Your task to perform on an android device: empty trash in google photos Image 0: 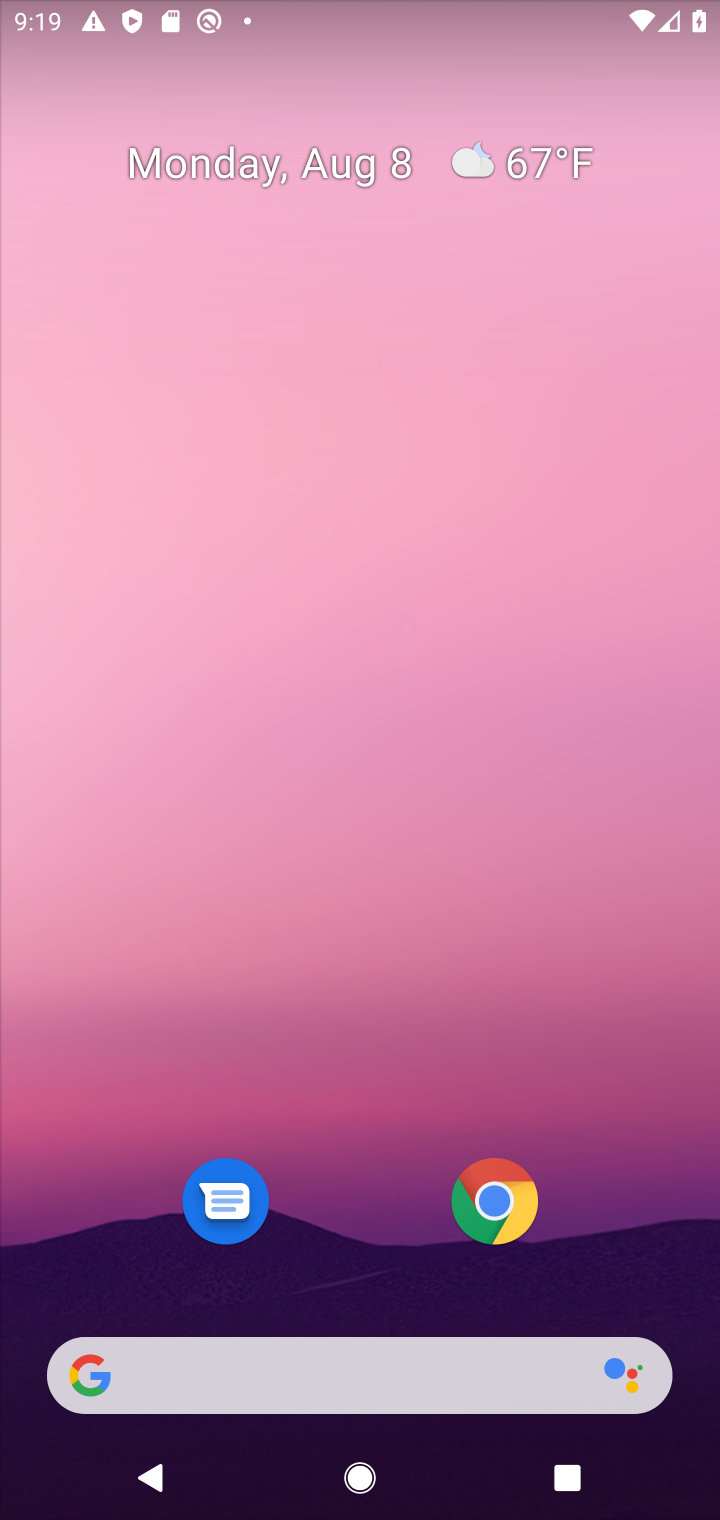
Step 0: press home button
Your task to perform on an android device: empty trash in google photos Image 1: 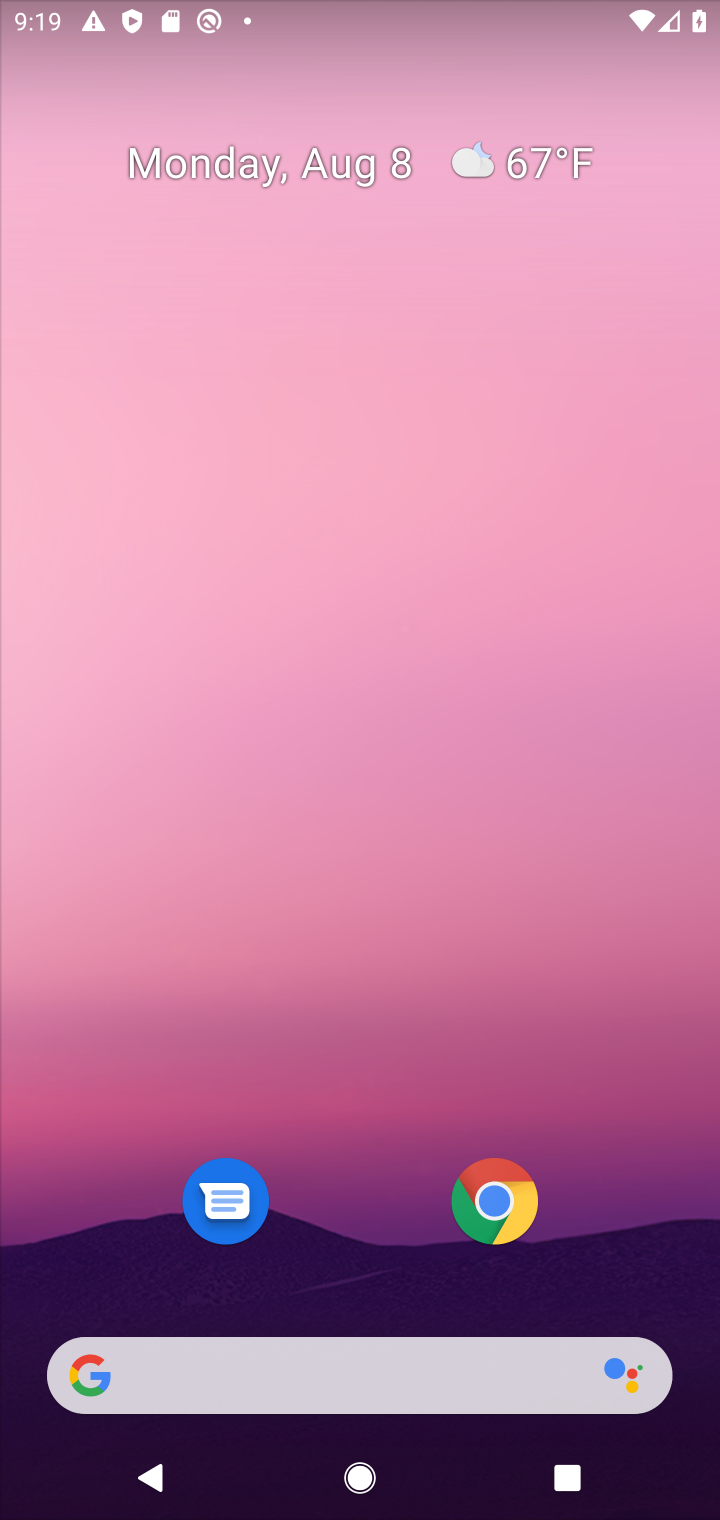
Step 1: drag from (372, 1234) to (407, 512)
Your task to perform on an android device: empty trash in google photos Image 2: 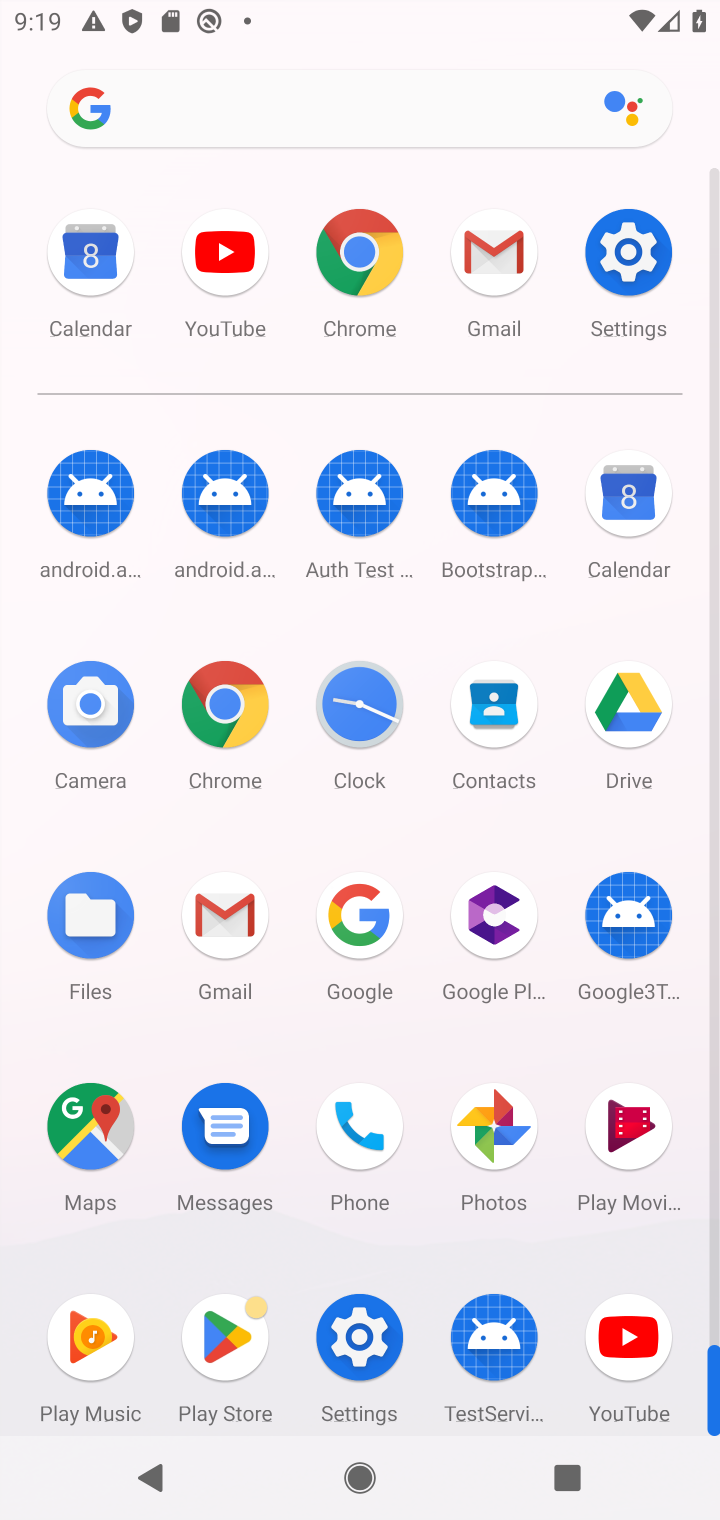
Step 2: click (498, 1107)
Your task to perform on an android device: empty trash in google photos Image 3: 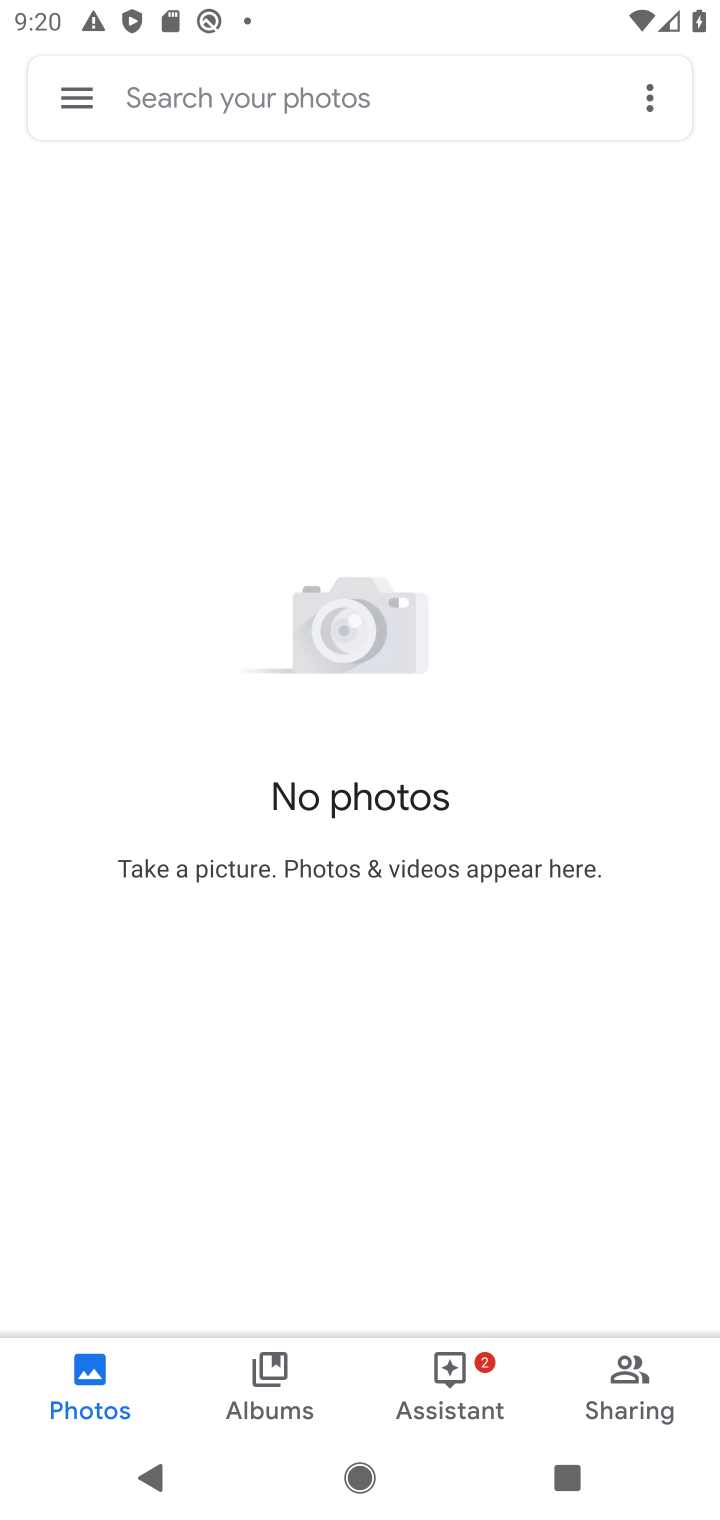
Step 3: click (74, 96)
Your task to perform on an android device: empty trash in google photos Image 4: 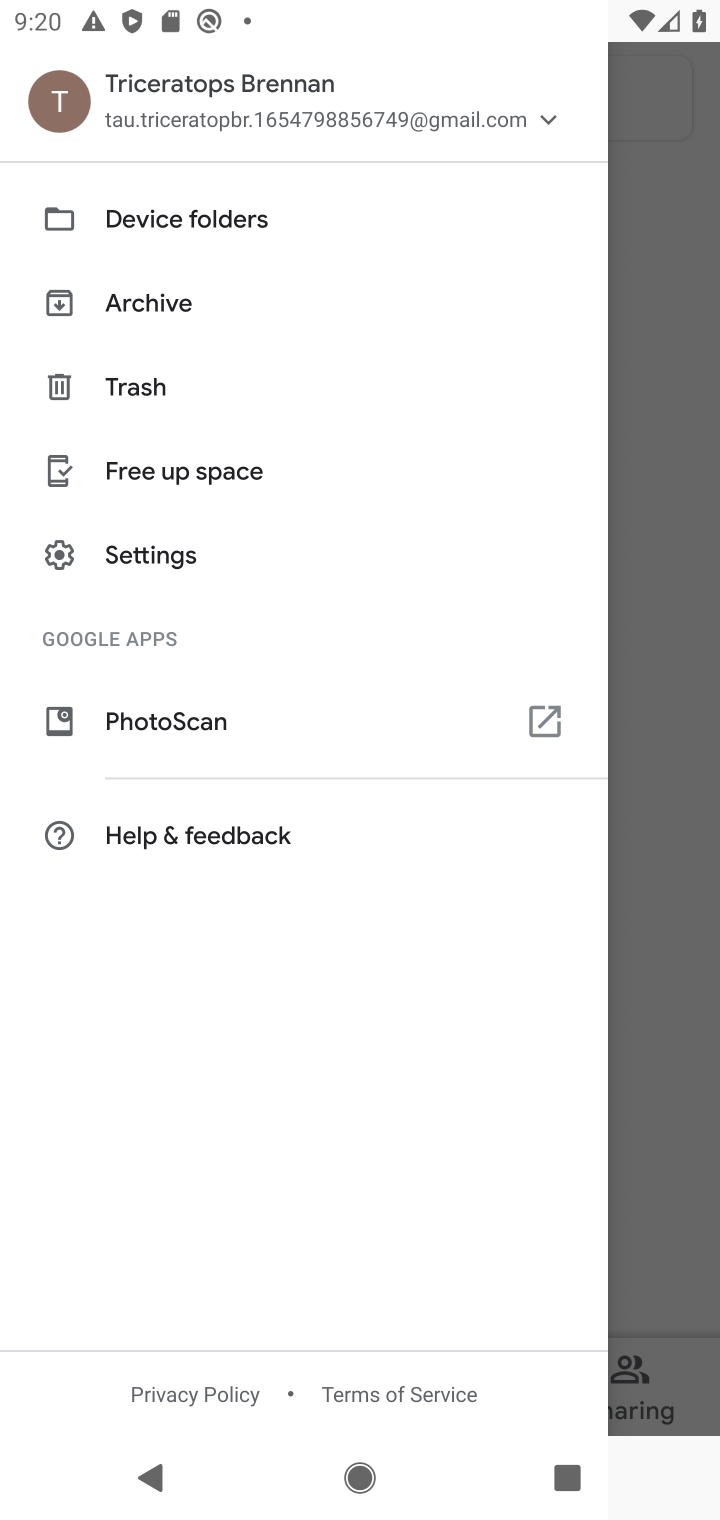
Step 4: click (143, 385)
Your task to perform on an android device: empty trash in google photos Image 5: 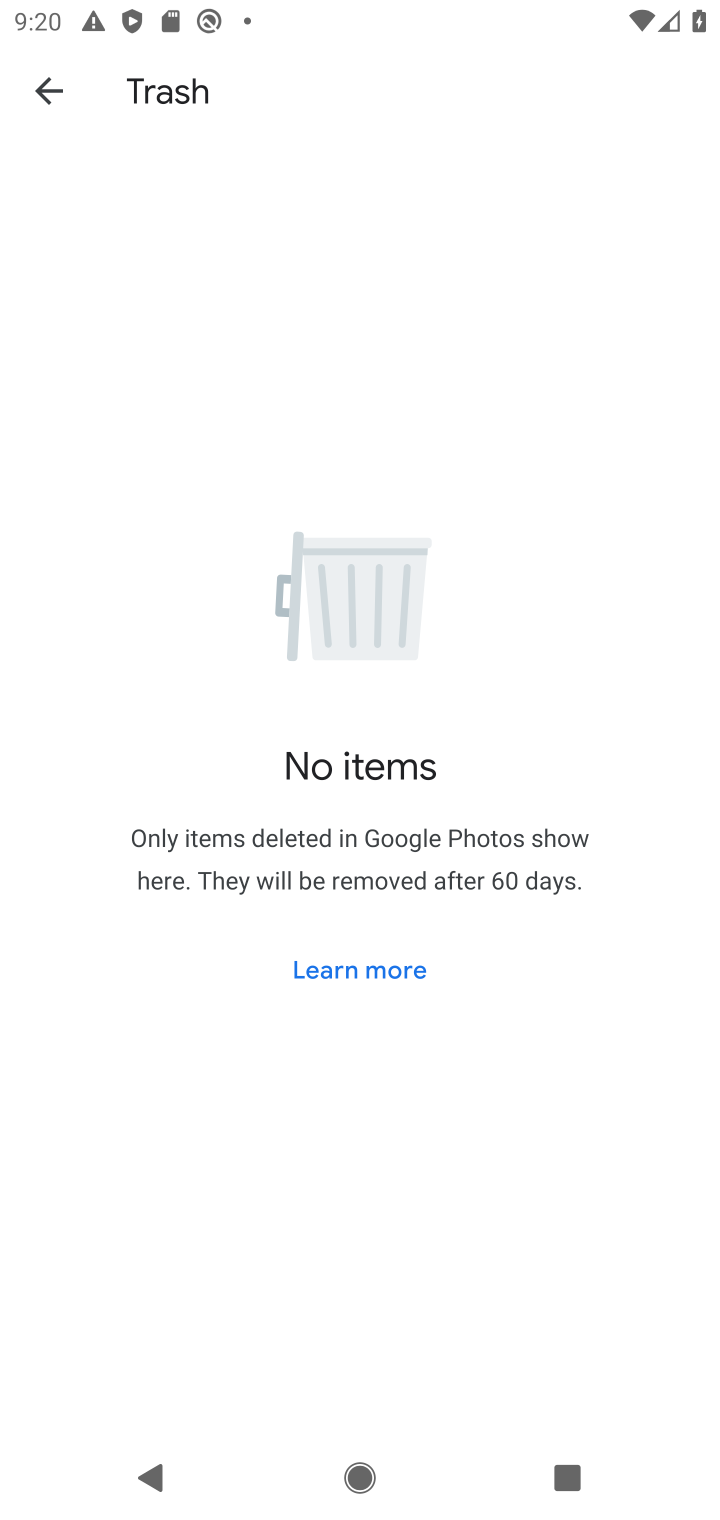
Step 5: task complete